Your task to perform on an android device: see sites visited before in the chrome app Image 0: 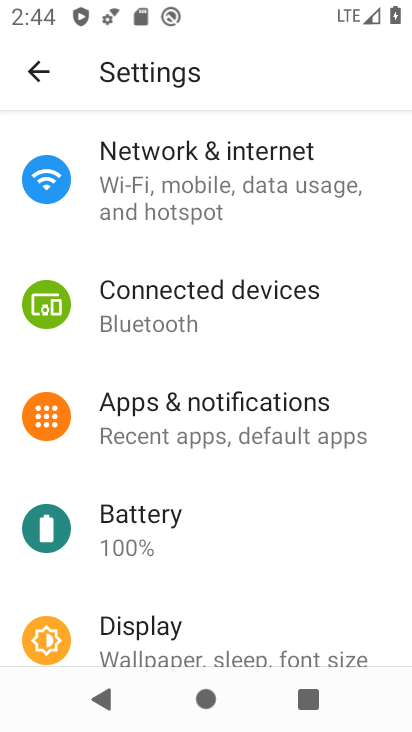
Step 0: press home button
Your task to perform on an android device: see sites visited before in the chrome app Image 1: 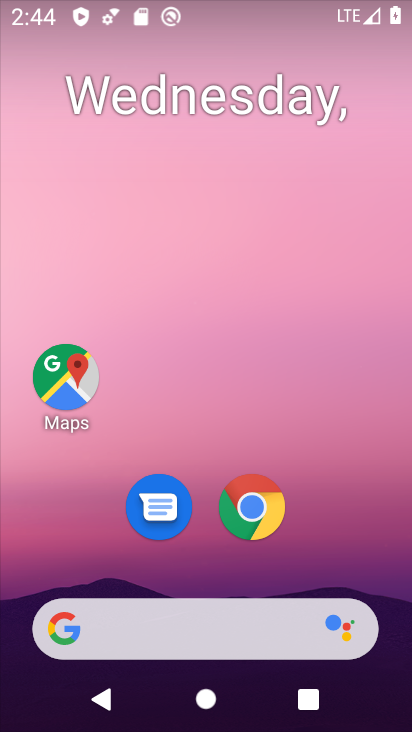
Step 1: click (253, 506)
Your task to perform on an android device: see sites visited before in the chrome app Image 2: 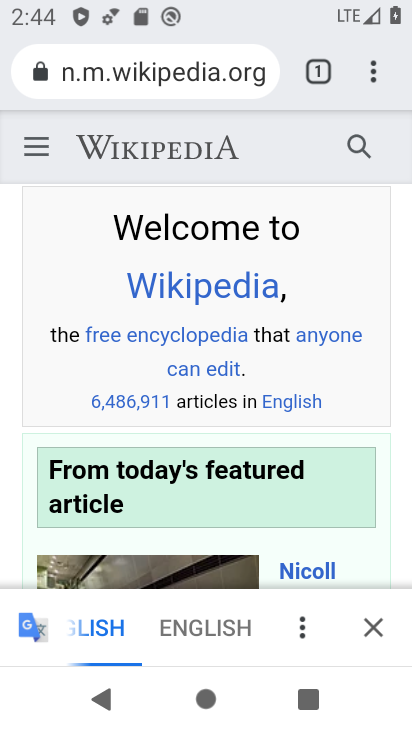
Step 2: click (374, 72)
Your task to perform on an android device: see sites visited before in the chrome app Image 3: 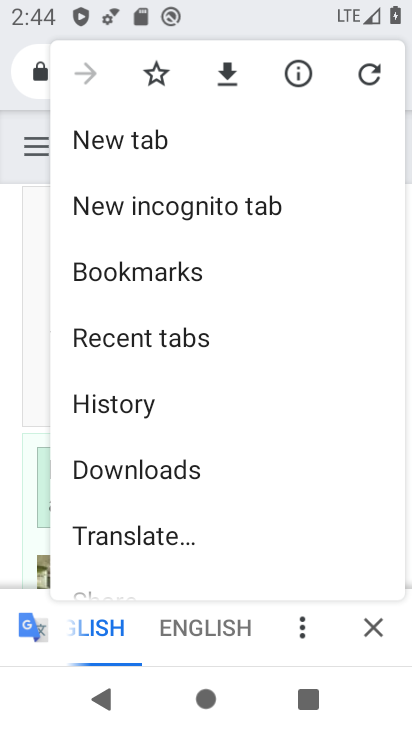
Step 3: click (126, 397)
Your task to perform on an android device: see sites visited before in the chrome app Image 4: 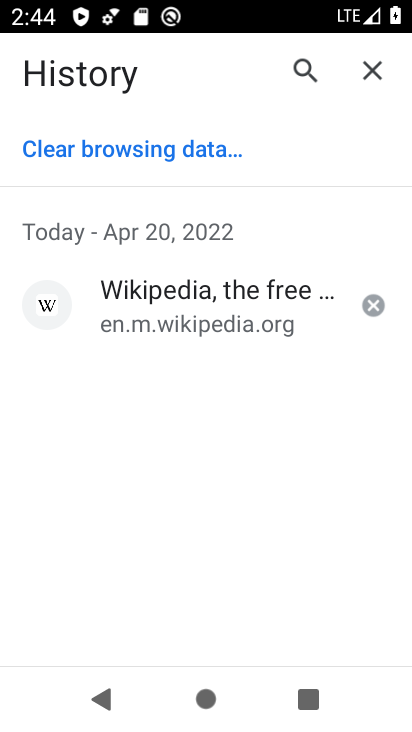
Step 4: task complete